Your task to perform on an android device: turn on sleep mode Image 0: 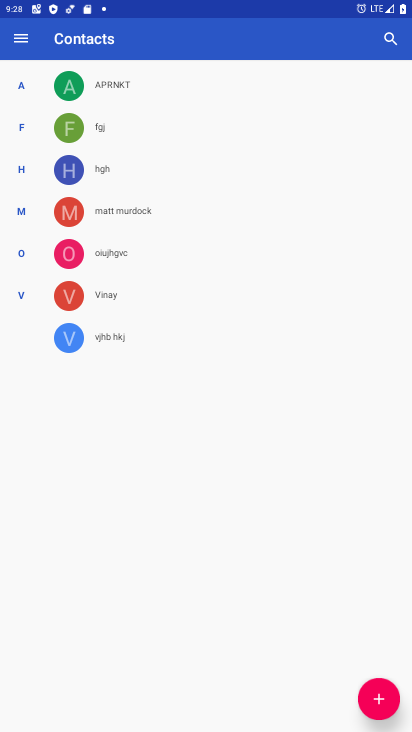
Step 0: press home button
Your task to perform on an android device: turn on sleep mode Image 1: 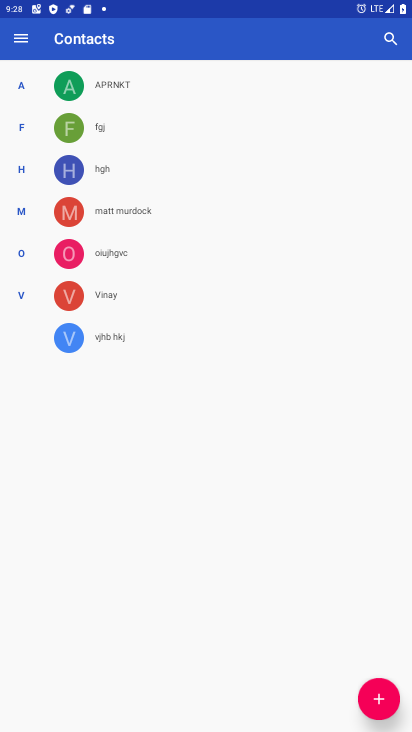
Step 1: press home button
Your task to perform on an android device: turn on sleep mode Image 2: 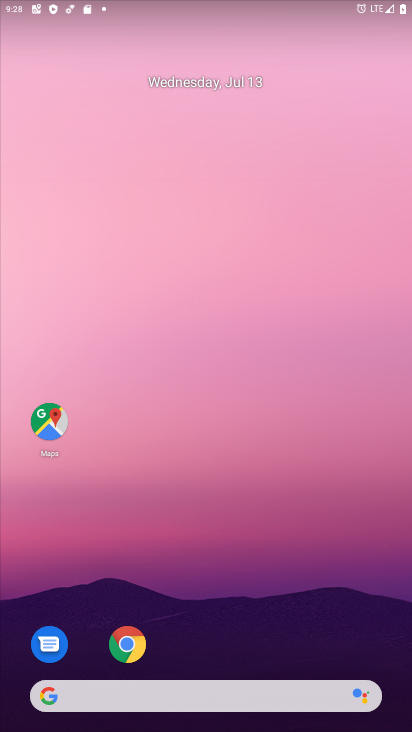
Step 2: drag from (233, 670) to (254, 56)
Your task to perform on an android device: turn on sleep mode Image 3: 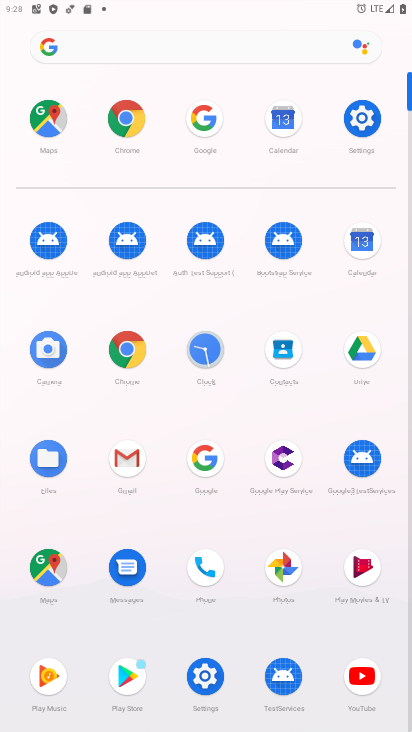
Step 3: click (364, 120)
Your task to perform on an android device: turn on sleep mode Image 4: 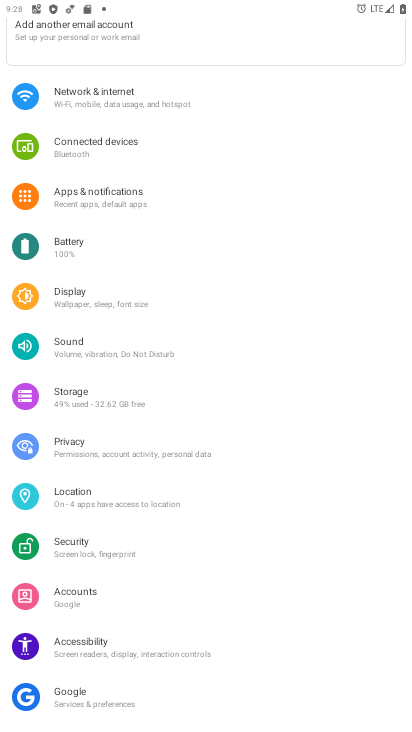
Step 4: click (106, 104)
Your task to perform on an android device: turn on sleep mode Image 5: 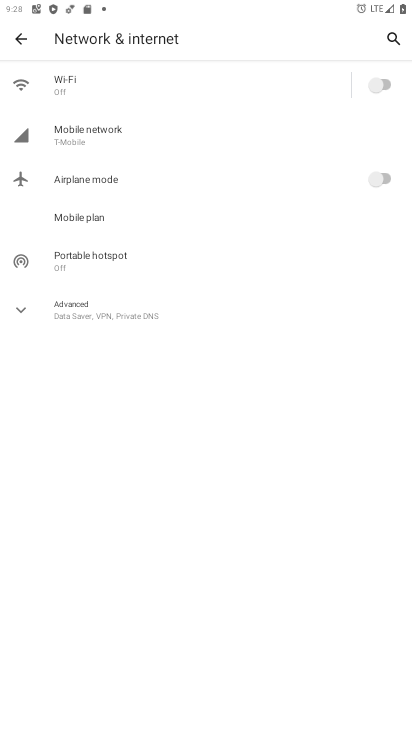
Step 5: click (20, 37)
Your task to perform on an android device: turn on sleep mode Image 6: 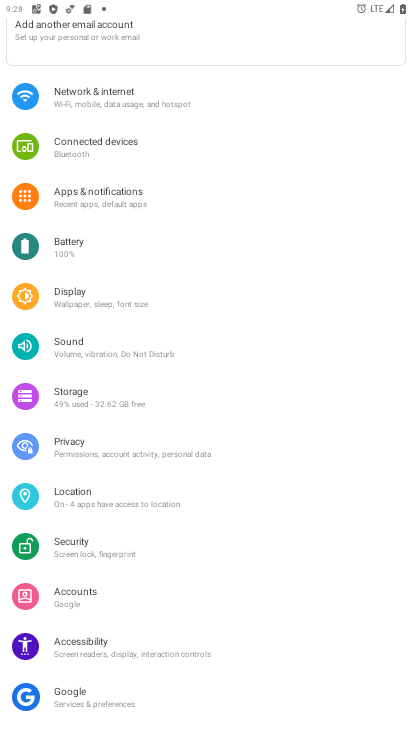
Step 6: drag from (150, 662) to (154, 385)
Your task to perform on an android device: turn on sleep mode Image 7: 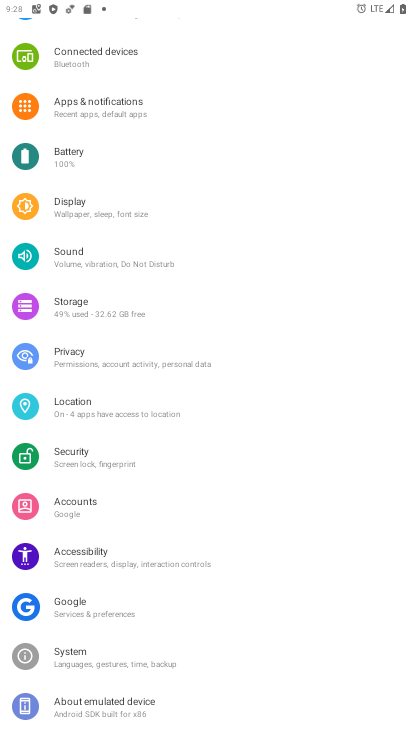
Step 7: click (116, 206)
Your task to perform on an android device: turn on sleep mode Image 8: 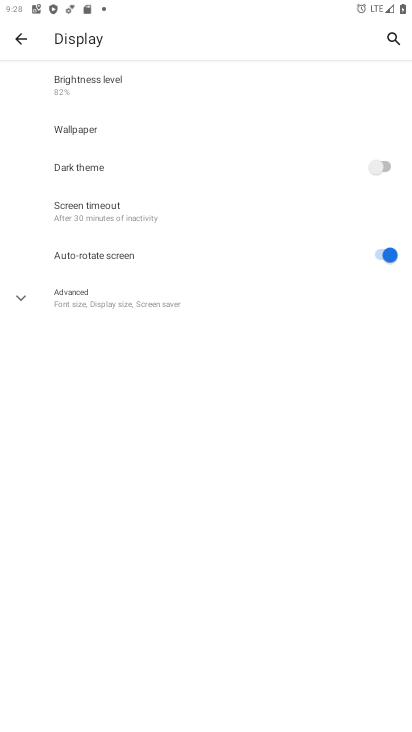
Step 8: click (17, 34)
Your task to perform on an android device: turn on sleep mode Image 9: 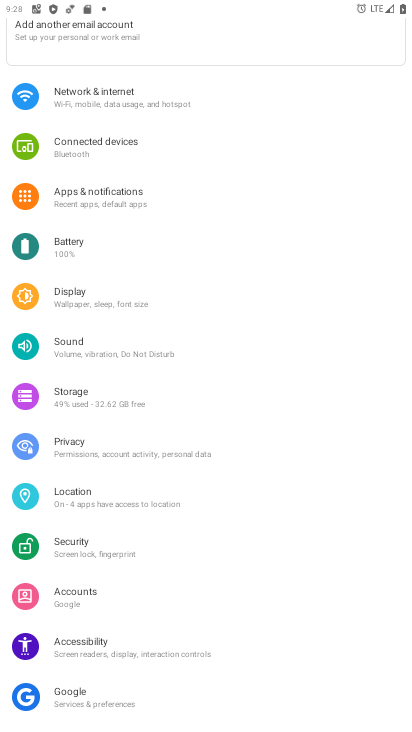
Step 9: task complete